Your task to perform on an android device: install app "Pinterest" Image 0: 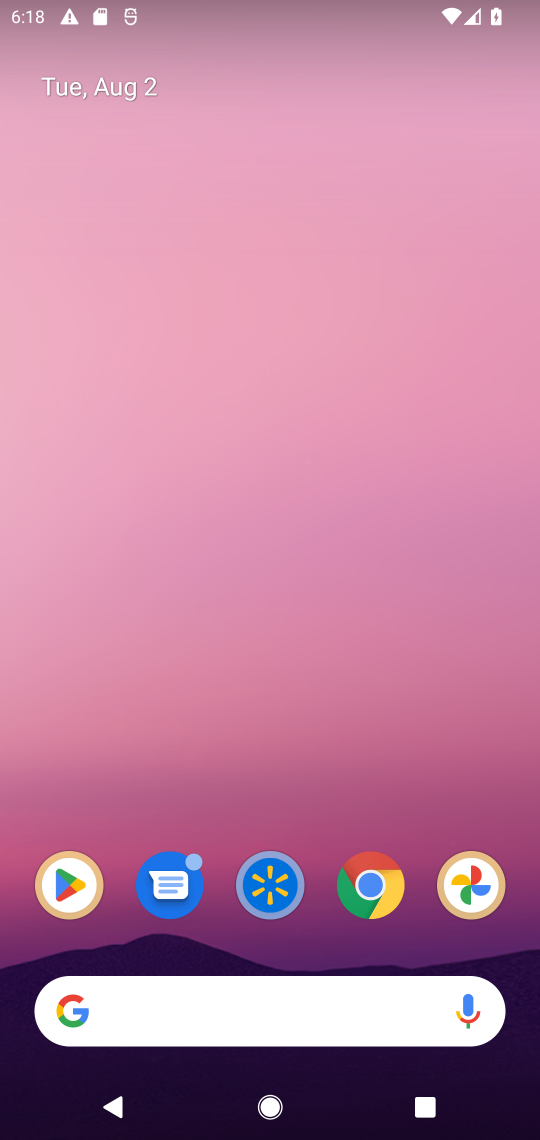
Step 0: drag from (382, 791) to (420, 110)
Your task to perform on an android device: install app "Pinterest" Image 1: 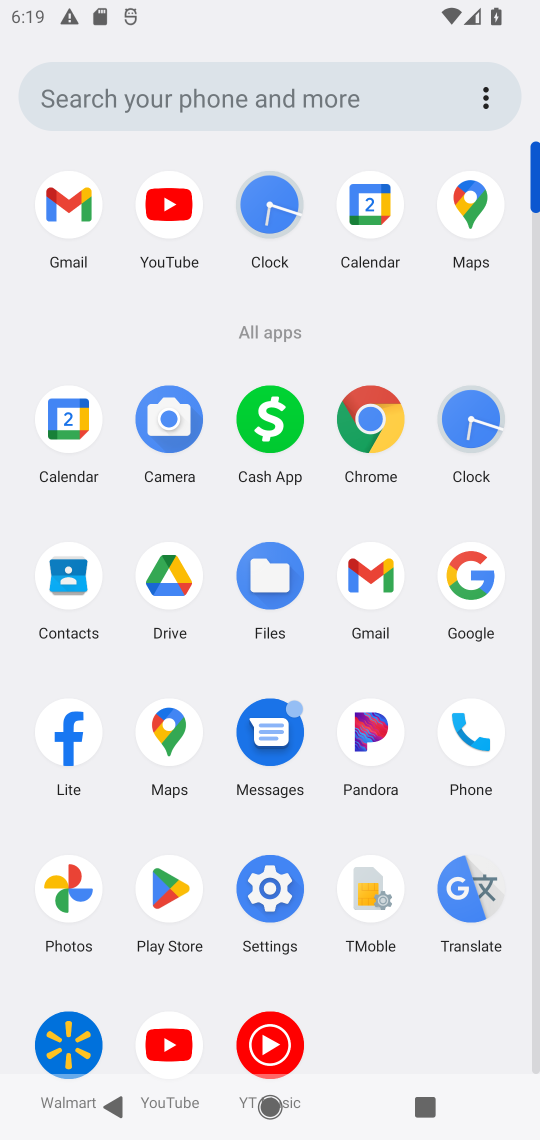
Step 1: click (167, 894)
Your task to perform on an android device: install app "Pinterest" Image 2: 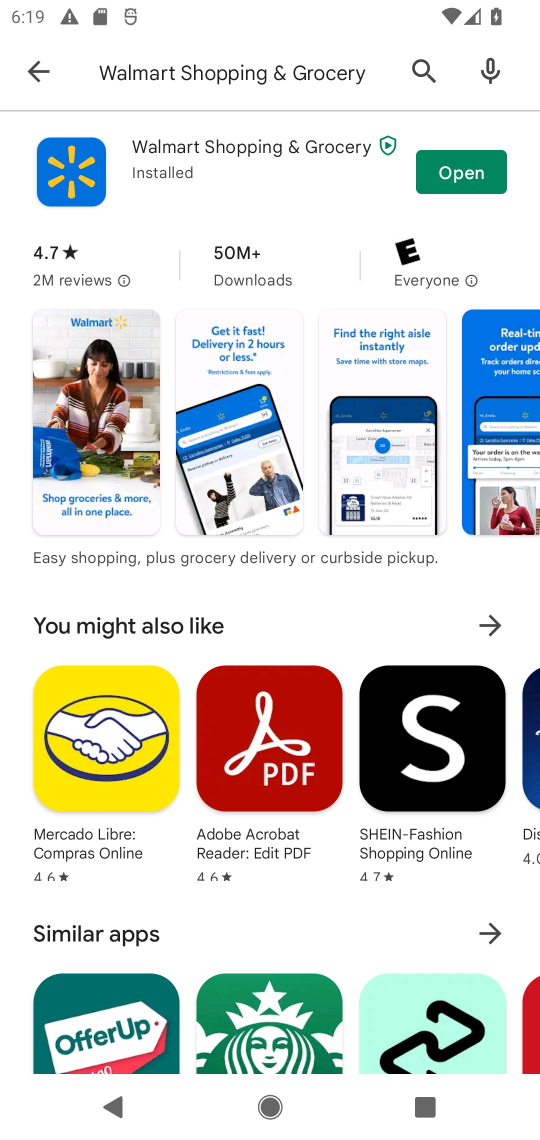
Step 2: click (417, 92)
Your task to perform on an android device: install app "Pinterest" Image 3: 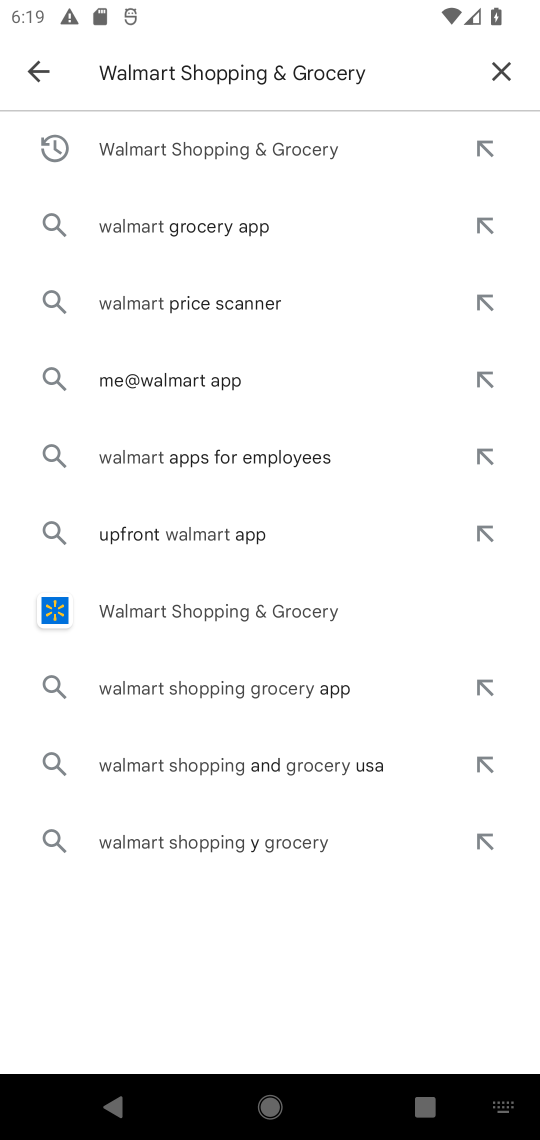
Step 3: click (423, 67)
Your task to perform on an android device: install app "Pinterest" Image 4: 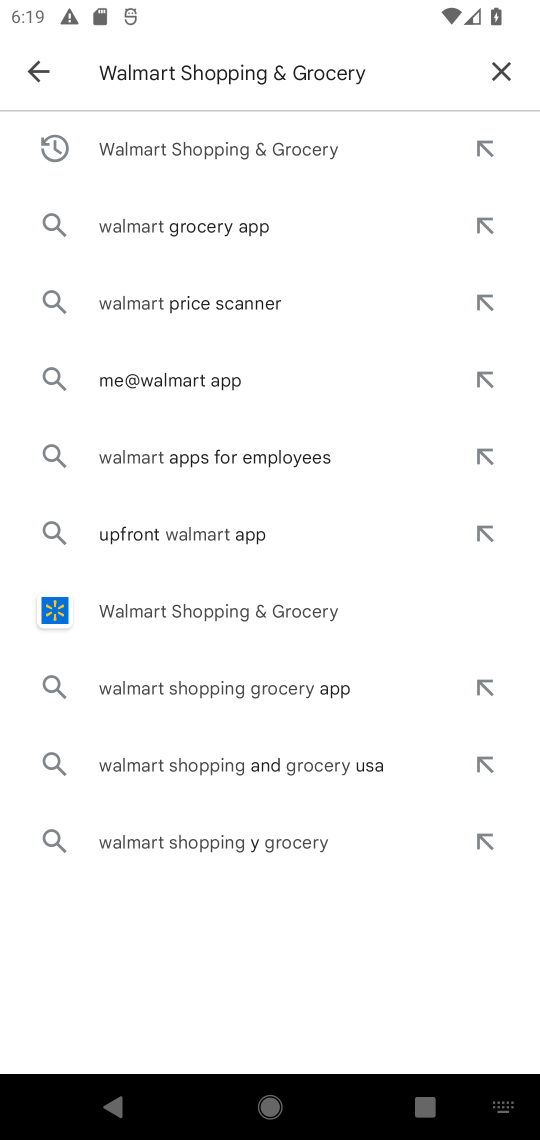
Step 4: click (501, 70)
Your task to perform on an android device: install app "Pinterest" Image 5: 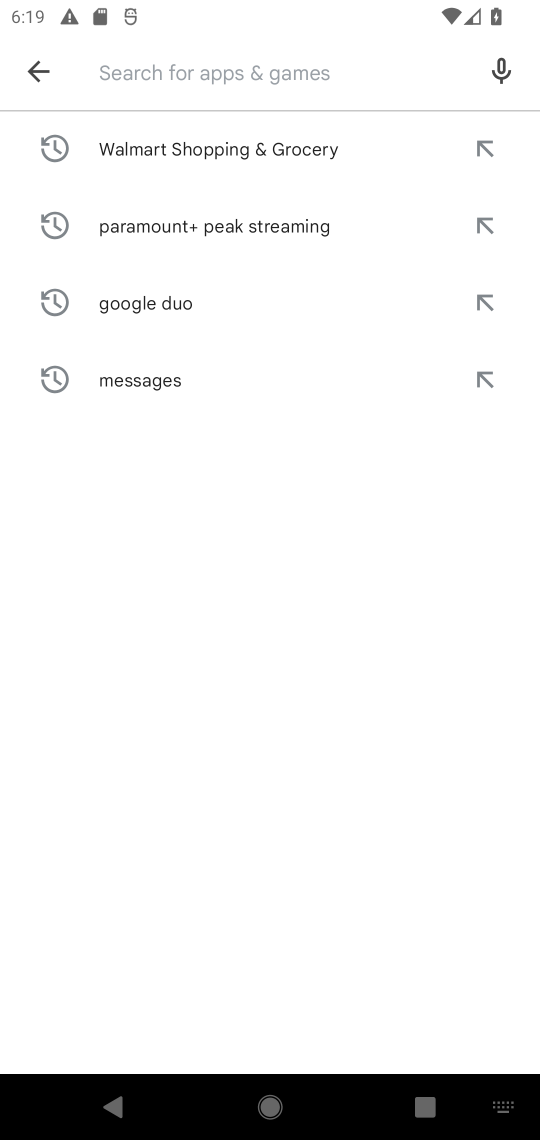
Step 5: click (358, 72)
Your task to perform on an android device: install app "Pinterest" Image 6: 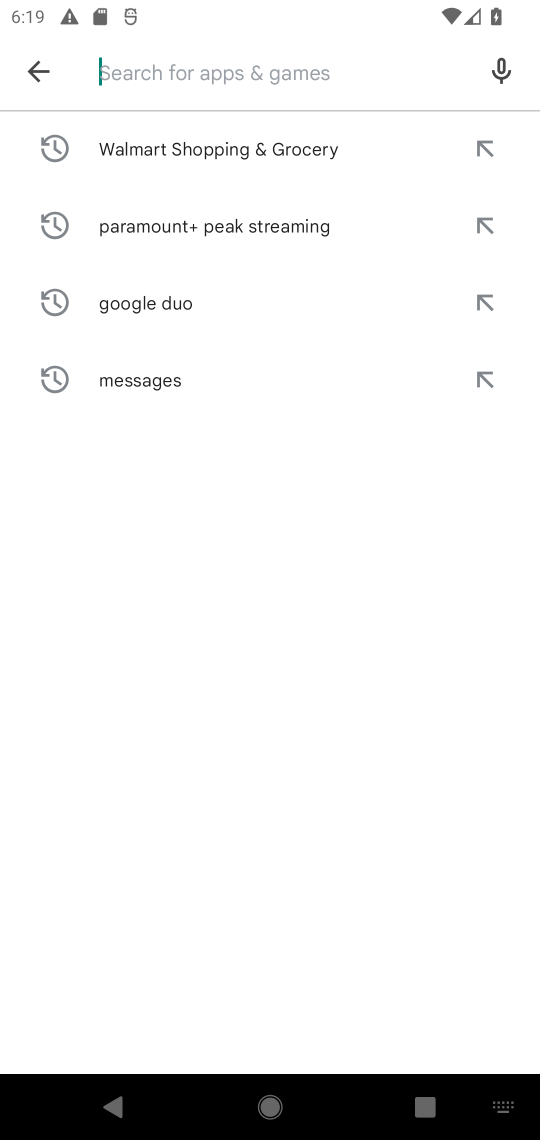
Step 6: type "pinterest"
Your task to perform on an android device: install app "Pinterest" Image 7: 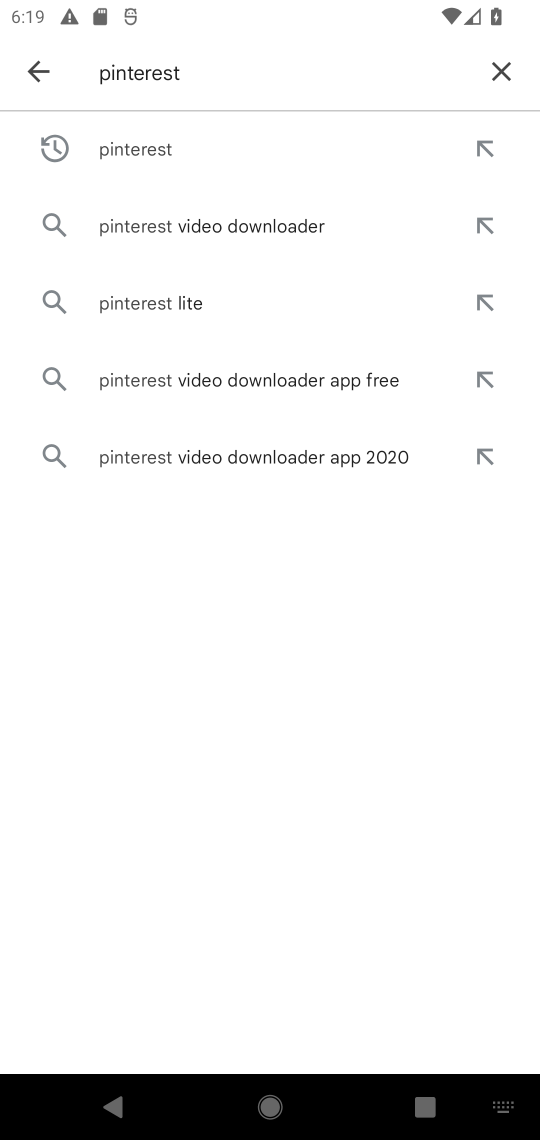
Step 7: click (172, 160)
Your task to perform on an android device: install app "Pinterest" Image 8: 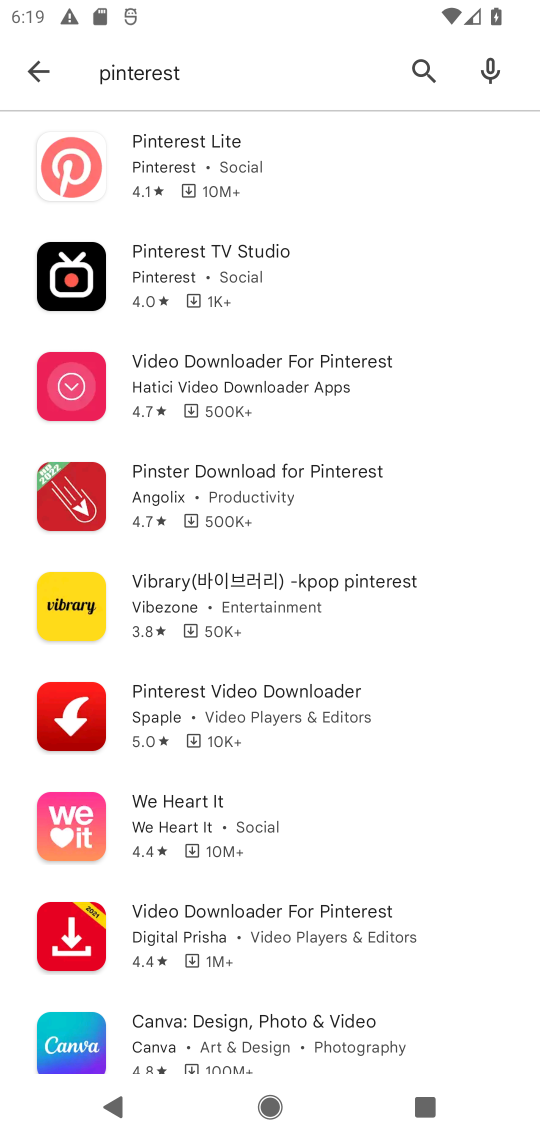
Step 8: task complete